Your task to perform on an android device: change the clock display to digital Image 0: 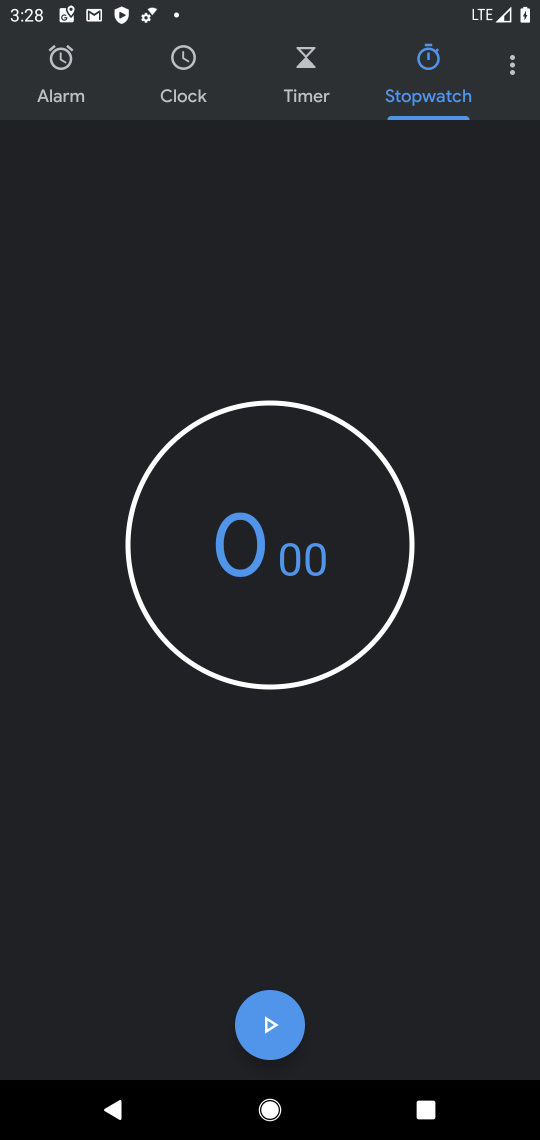
Step 0: click (517, 72)
Your task to perform on an android device: change the clock display to digital Image 1: 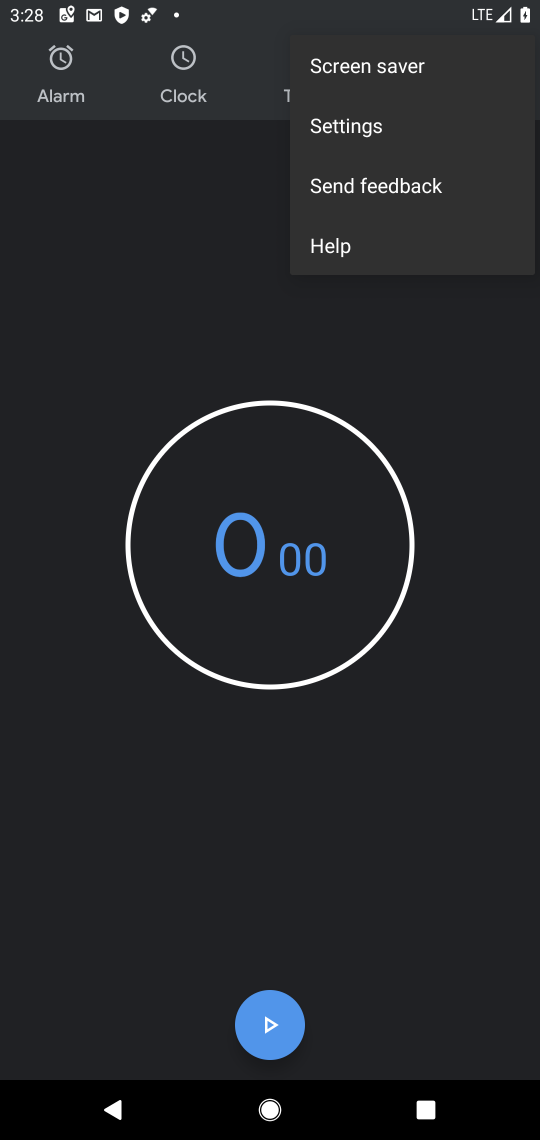
Step 1: click (424, 108)
Your task to perform on an android device: change the clock display to digital Image 2: 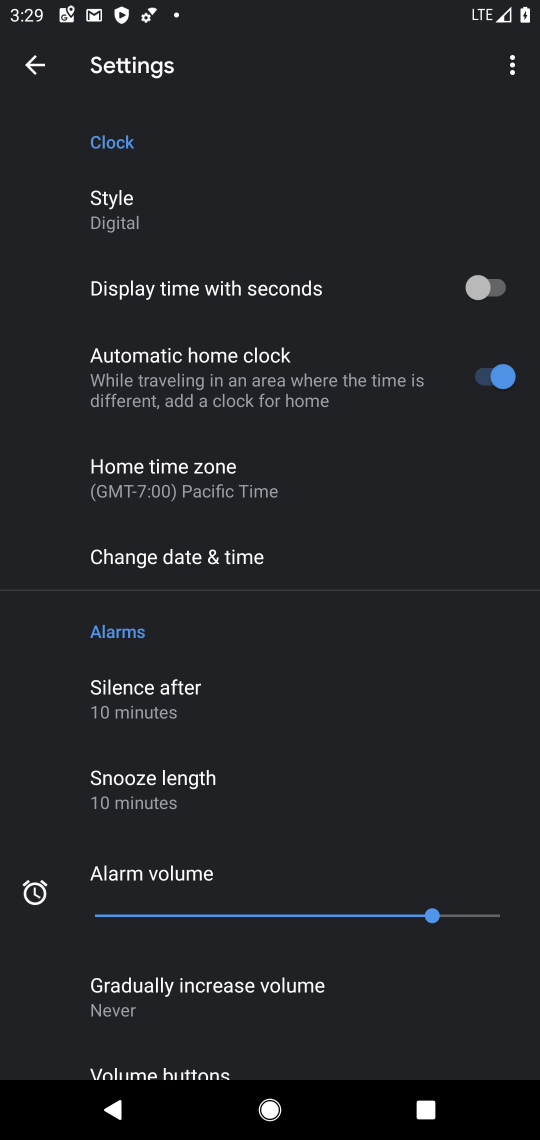
Step 2: task complete